Your task to perform on an android device: toggle location history Image 0: 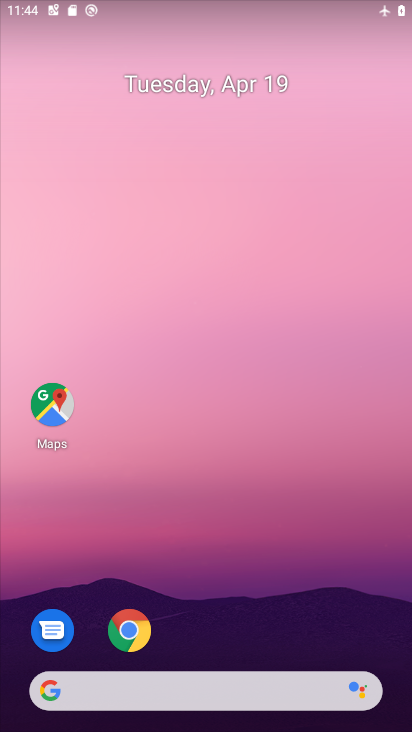
Step 0: drag from (191, 612) to (237, 140)
Your task to perform on an android device: toggle location history Image 1: 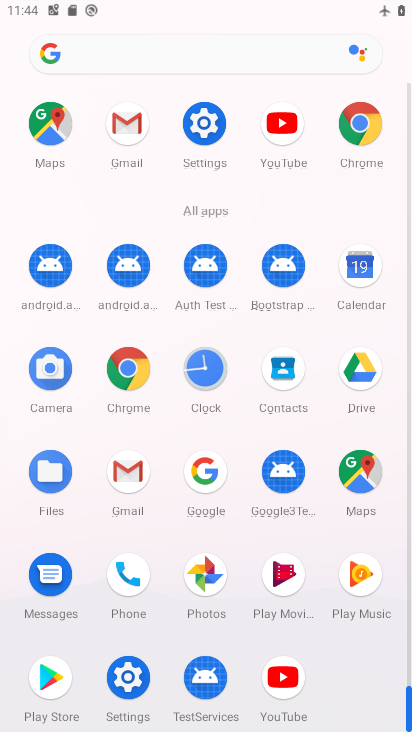
Step 1: click (357, 479)
Your task to perform on an android device: toggle location history Image 2: 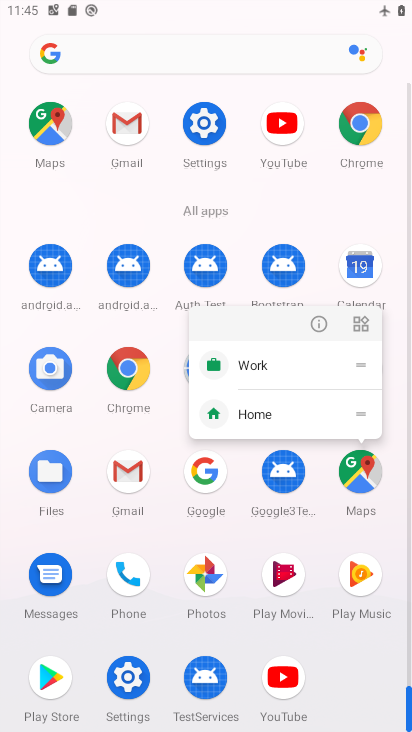
Step 2: click (361, 485)
Your task to perform on an android device: toggle location history Image 3: 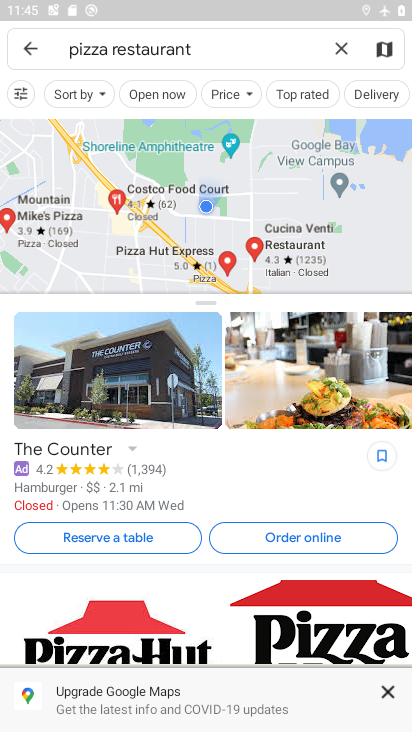
Step 3: click (341, 43)
Your task to perform on an android device: toggle location history Image 4: 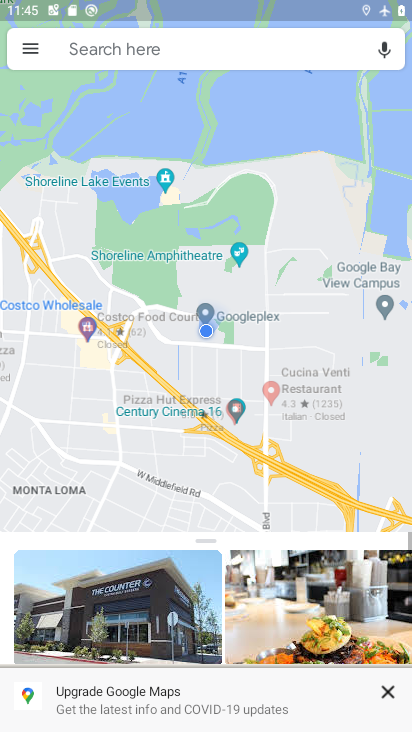
Step 4: click (32, 50)
Your task to perform on an android device: toggle location history Image 5: 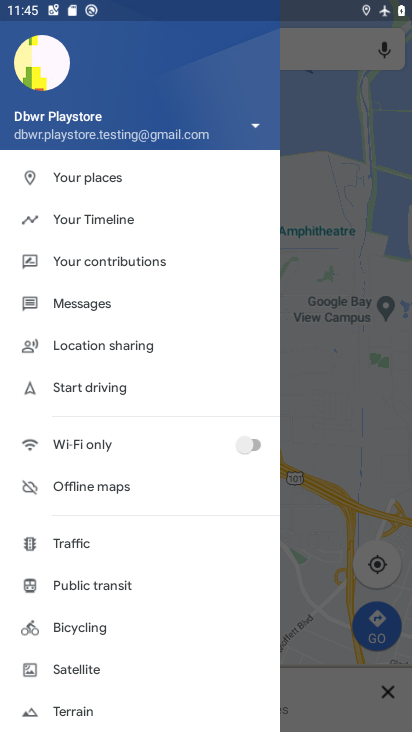
Step 5: click (106, 214)
Your task to perform on an android device: toggle location history Image 6: 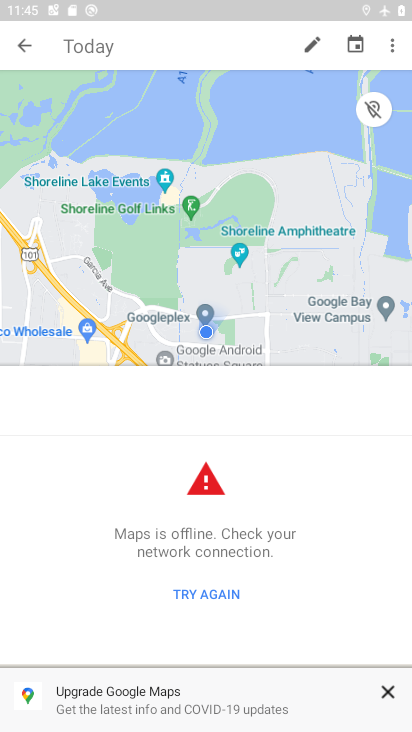
Step 6: click (391, 47)
Your task to perform on an android device: toggle location history Image 7: 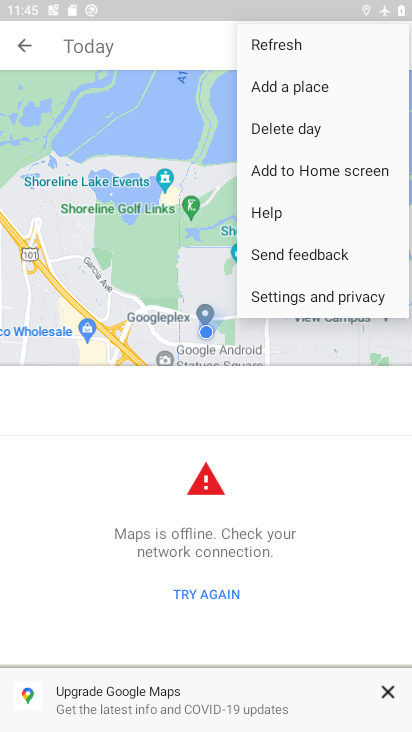
Step 7: click (269, 296)
Your task to perform on an android device: toggle location history Image 8: 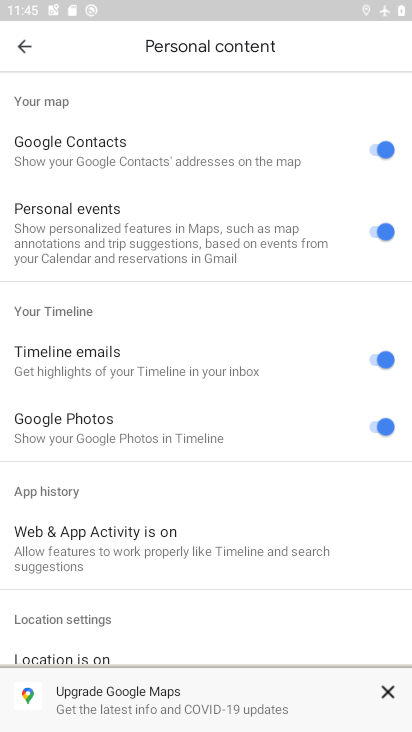
Step 8: drag from (258, 603) to (291, 246)
Your task to perform on an android device: toggle location history Image 9: 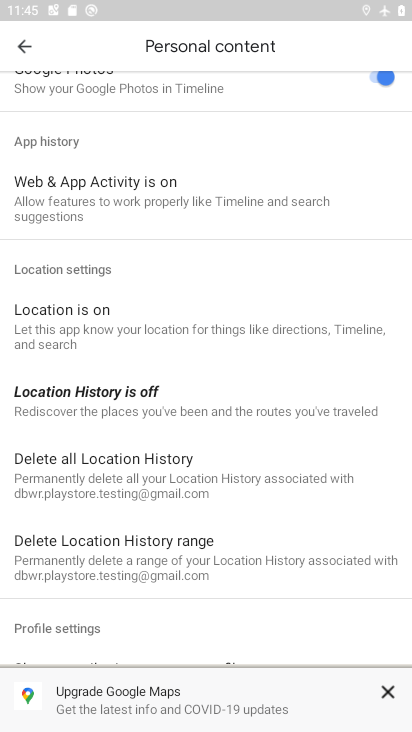
Step 9: click (113, 397)
Your task to perform on an android device: toggle location history Image 10: 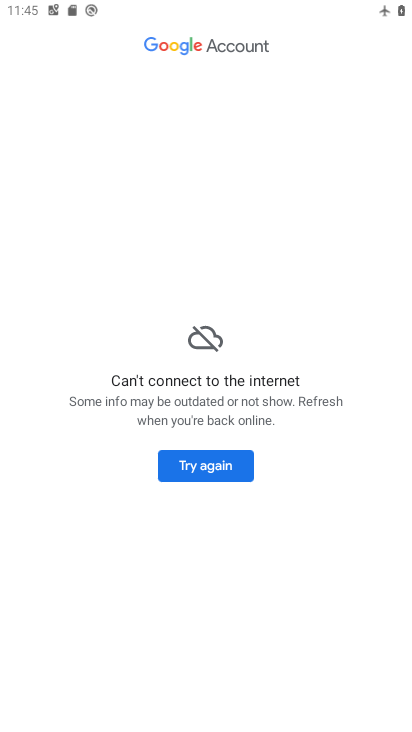
Step 10: drag from (305, 4) to (263, 358)
Your task to perform on an android device: toggle location history Image 11: 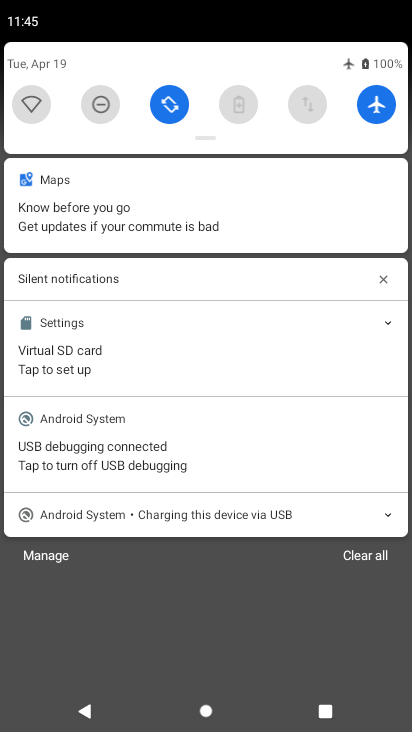
Step 11: click (378, 104)
Your task to perform on an android device: toggle location history Image 12: 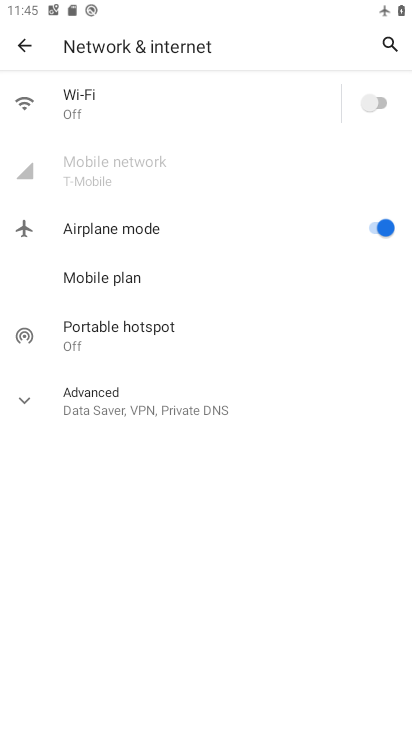
Step 12: click (382, 228)
Your task to perform on an android device: toggle location history Image 13: 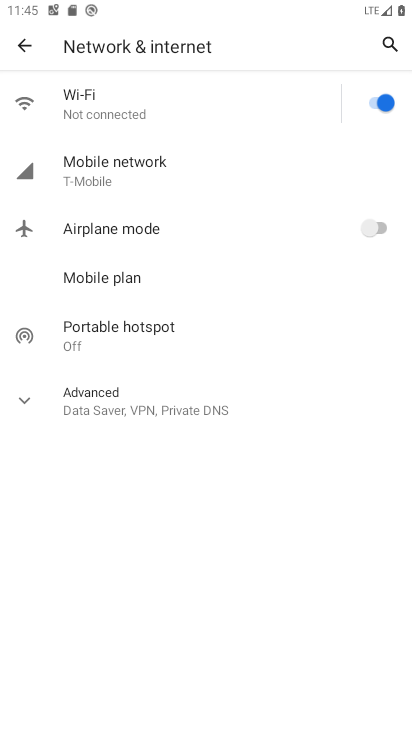
Step 13: press back button
Your task to perform on an android device: toggle location history Image 14: 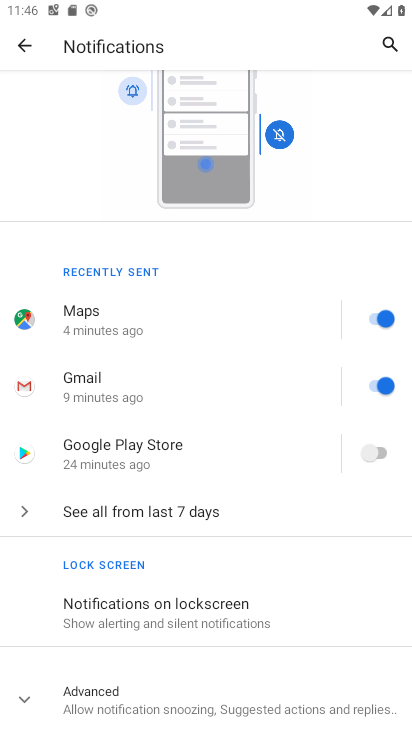
Step 14: click (23, 46)
Your task to perform on an android device: toggle location history Image 15: 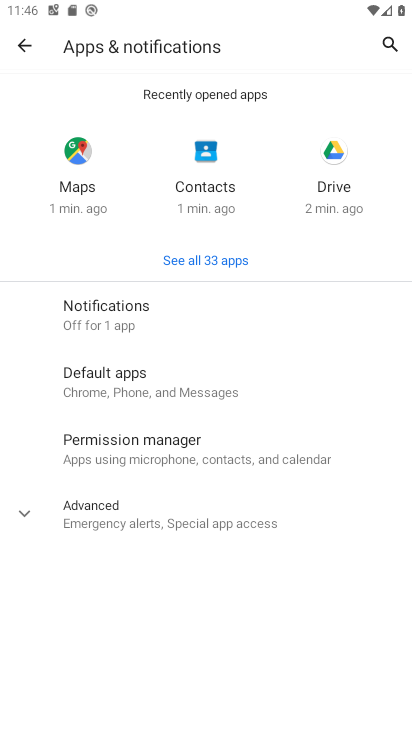
Step 15: click (23, 46)
Your task to perform on an android device: toggle location history Image 16: 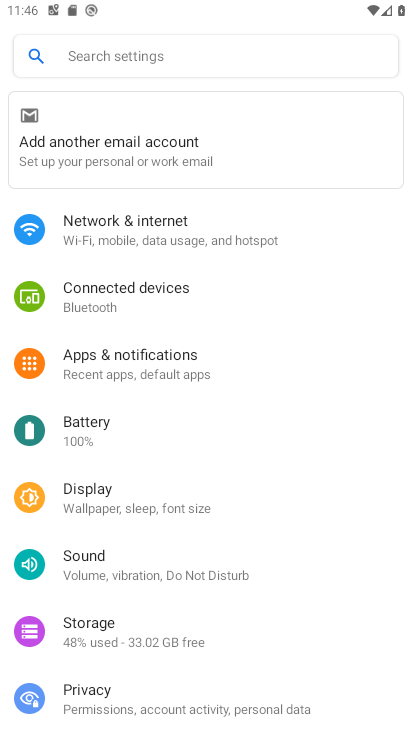
Step 16: drag from (233, 628) to (253, 324)
Your task to perform on an android device: toggle location history Image 17: 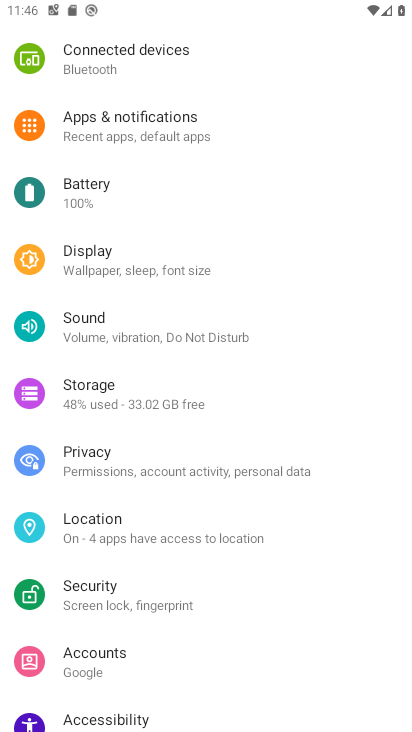
Step 17: press back button
Your task to perform on an android device: toggle location history Image 18: 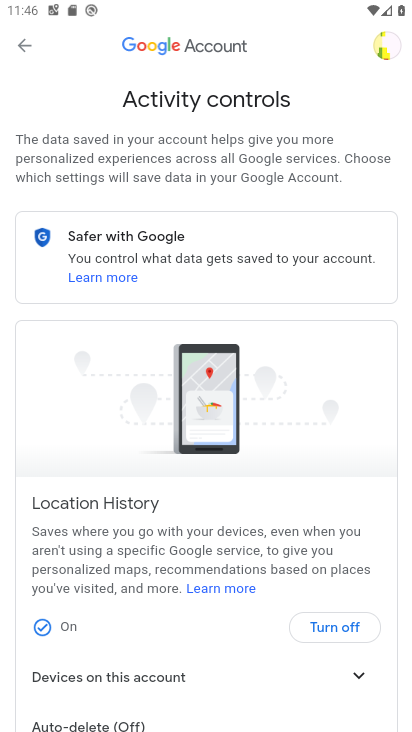
Step 18: drag from (239, 575) to (254, 195)
Your task to perform on an android device: toggle location history Image 19: 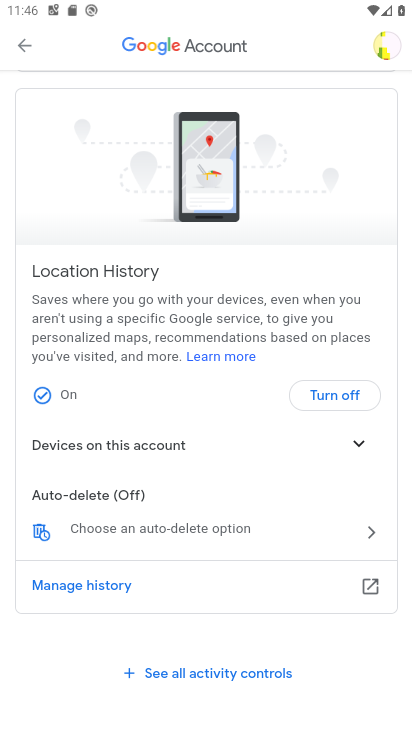
Step 19: click (342, 394)
Your task to perform on an android device: toggle location history Image 20: 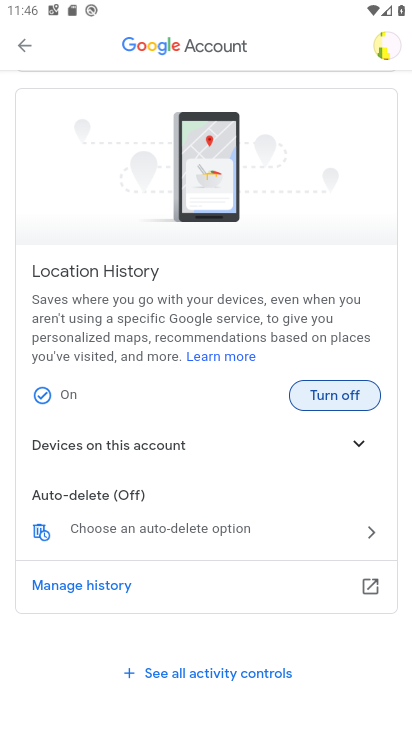
Step 20: click (342, 394)
Your task to perform on an android device: toggle location history Image 21: 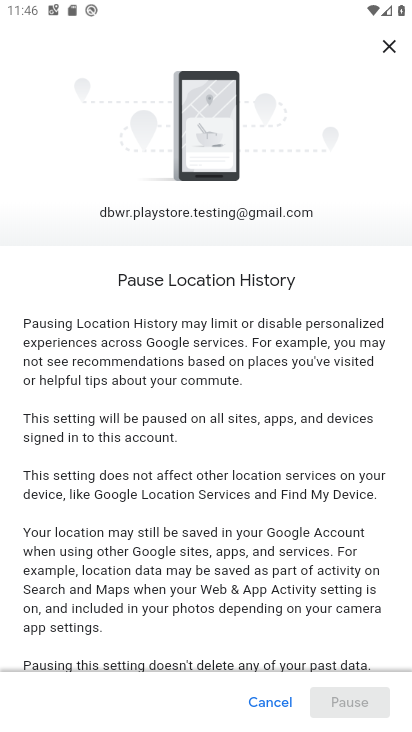
Step 21: drag from (326, 606) to (328, 193)
Your task to perform on an android device: toggle location history Image 22: 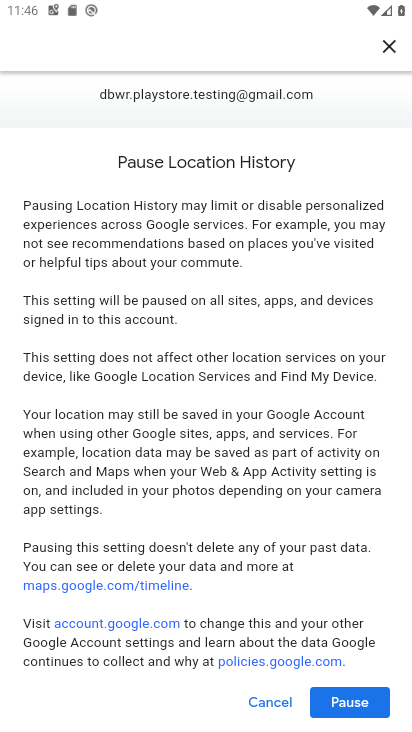
Step 22: click (348, 704)
Your task to perform on an android device: toggle location history Image 23: 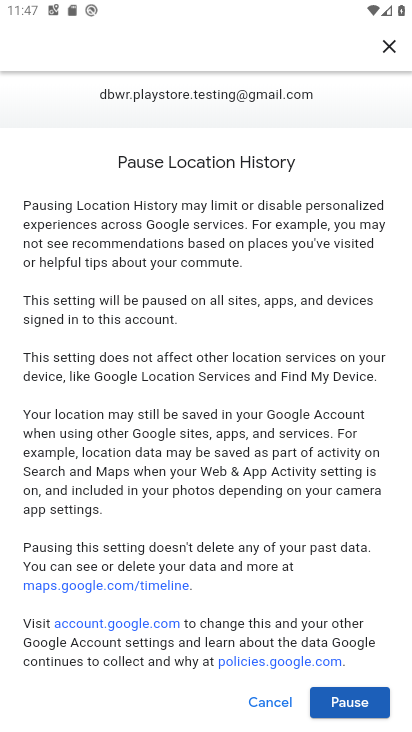
Step 23: click (347, 701)
Your task to perform on an android device: toggle location history Image 24: 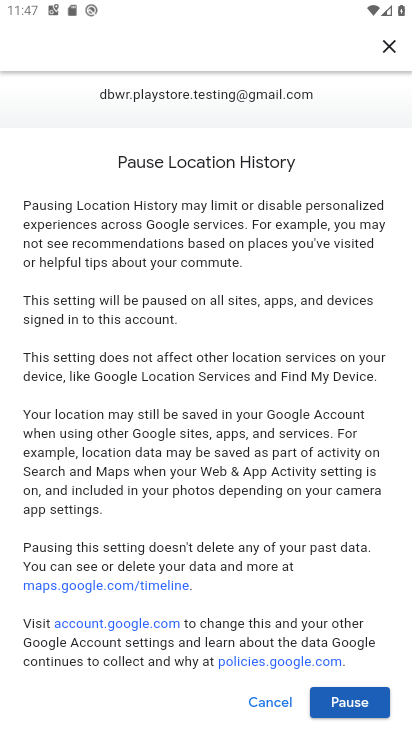
Step 24: click (366, 701)
Your task to perform on an android device: toggle location history Image 25: 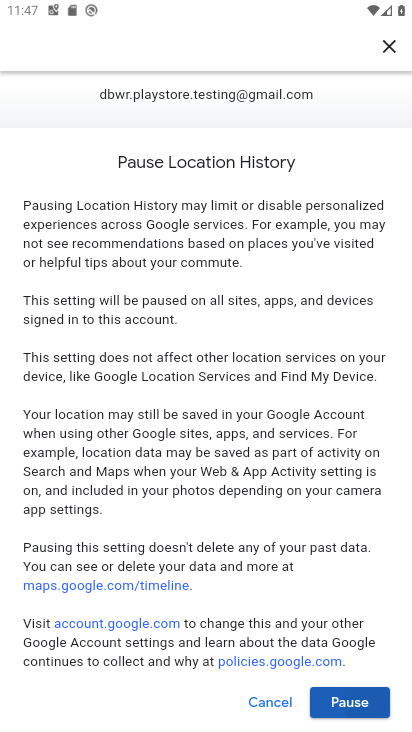
Step 25: click (366, 701)
Your task to perform on an android device: toggle location history Image 26: 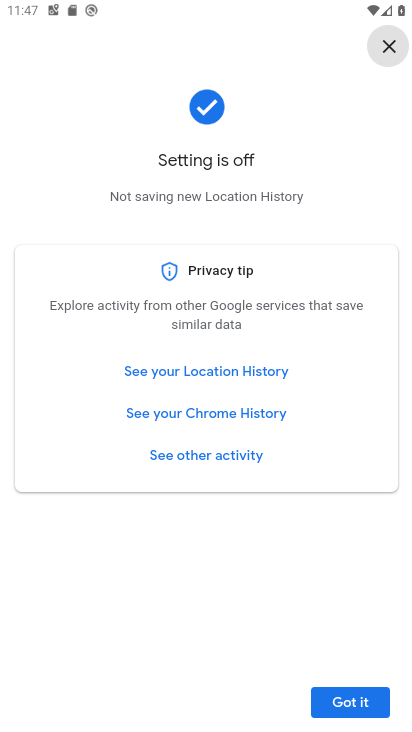
Step 26: click (379, 698)
Your task to perform on an android device: toggle location history Image 27: 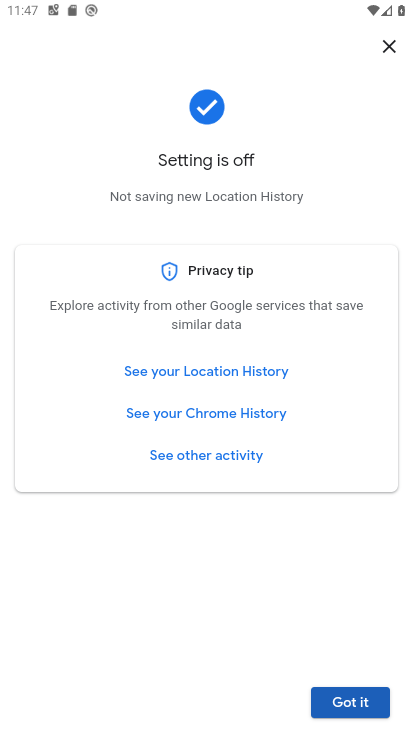
Step 27: click (374, 696)
Your task to perform on an android device: toggle location history Image 28: 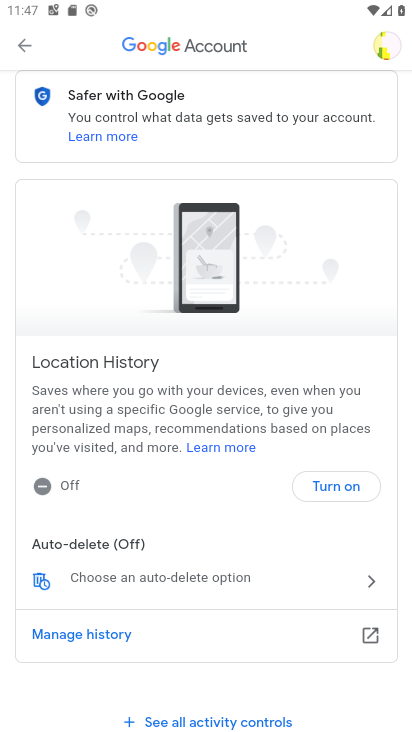
Step 28: task complete